Your task to perform on an android device: turn off translation in the chrome app Image 0: 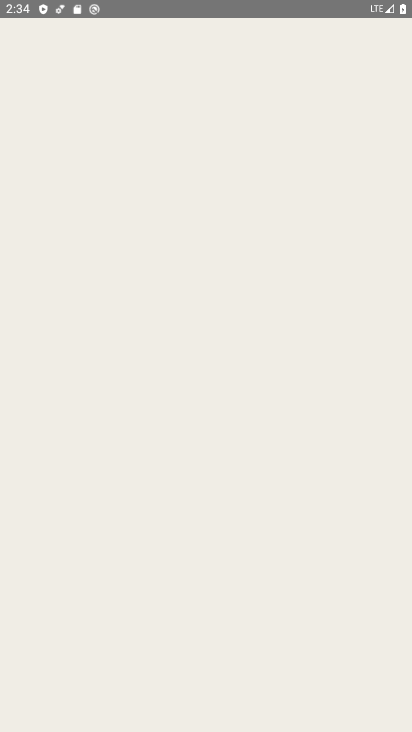
Step 0: click (171, 249)
Your task to perform on an android device: turn off translation in the chrome app Image 1: 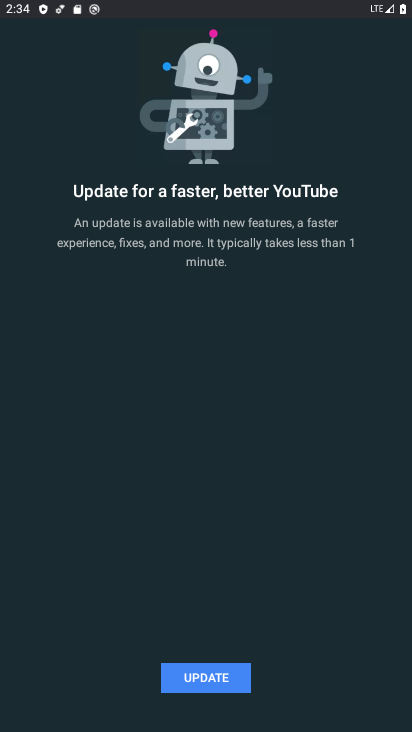
Step 1: press home button
Your task to perform on an android device: turn off translation in the chrome app Image 2: 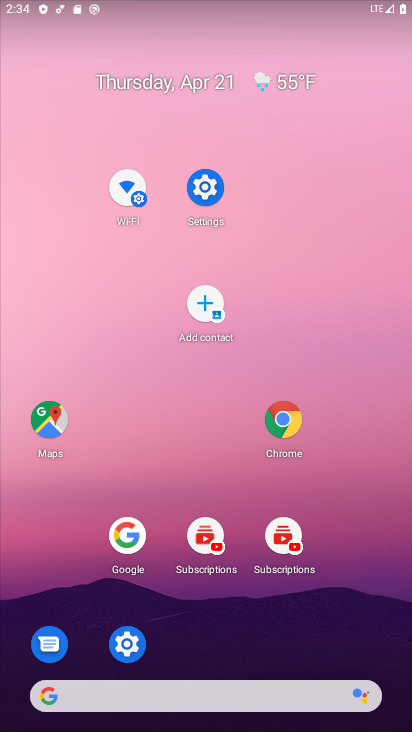
Step 2: drag from (331, 644) to (147, 227)
Your task to perform on an android device: turn off translation in the chrome app Image 3: 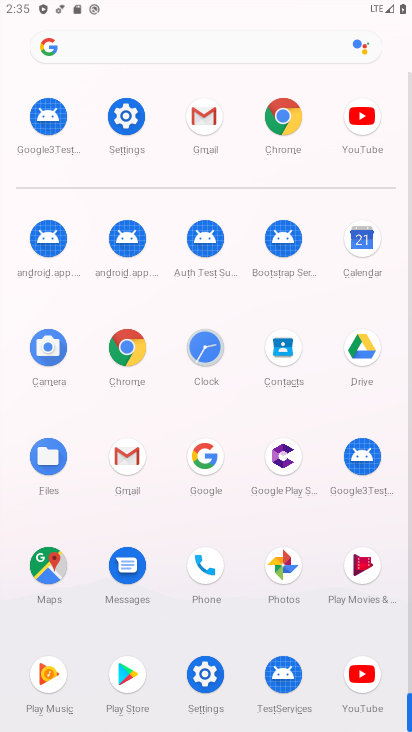
Step 3: click (277, 110)
Your task to perform on an android device: turn off translation in the chrome app Image 4: 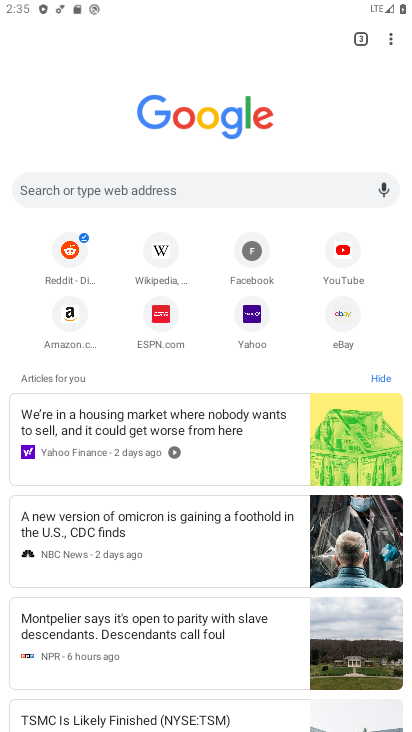
Step 4: drag from (387, 42) to (260, 369)
Your task to perform on an android device: turn off translation in the chrome app Image 5: 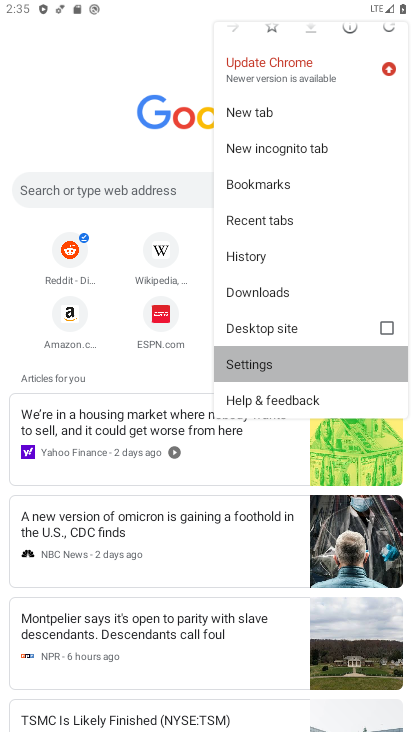
Step 5: click (260, 369)
Your task to perform on an android device: turn off translation in the chrome app Image 6: 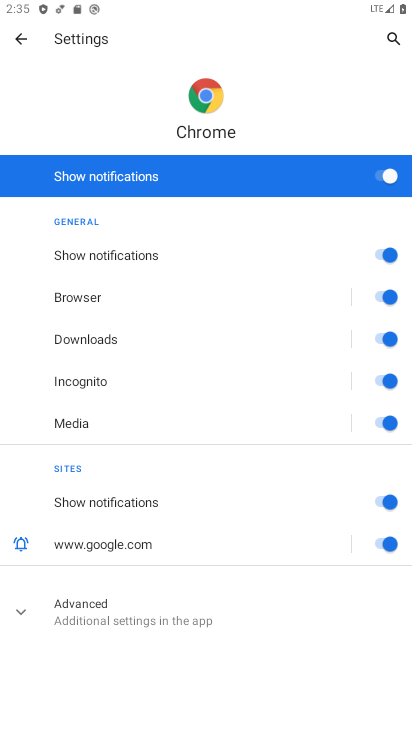
Step 6: click (17, 32)
Your task to perform on an android device: turn off translation in the chrome app Image 7: 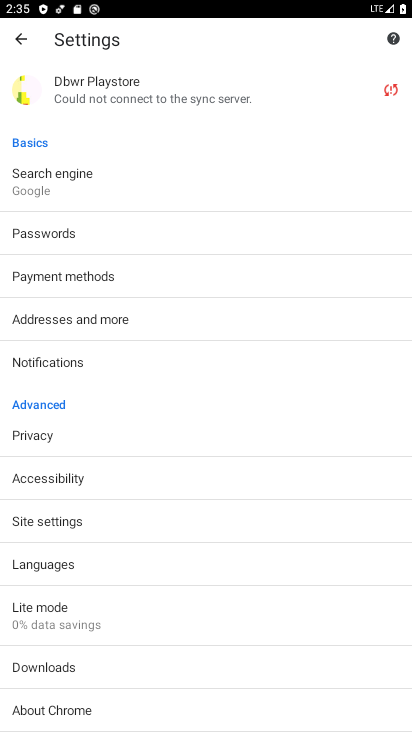
Step 7: click (39, 561)
Your task to perform on an android device: turn off translation in the chrome app Image 8: 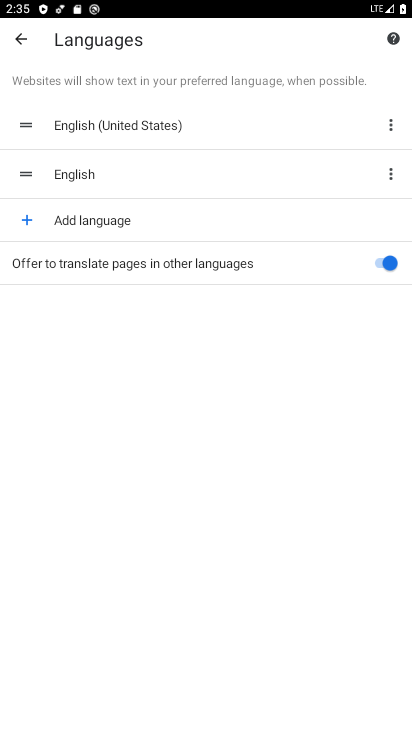
Step 8: click (387, 257)
Your task to perform on an android device: turn off translation in the chrome app Image 9: 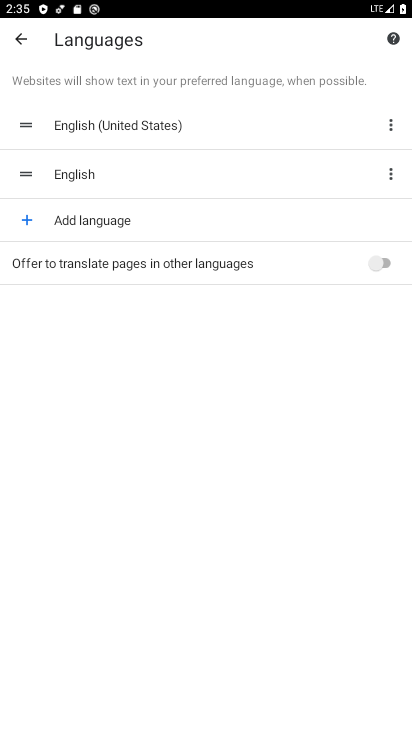
Step 9: task complete